Your task to perform on an android device: toggle notifications settings in the gmail app Image 0: 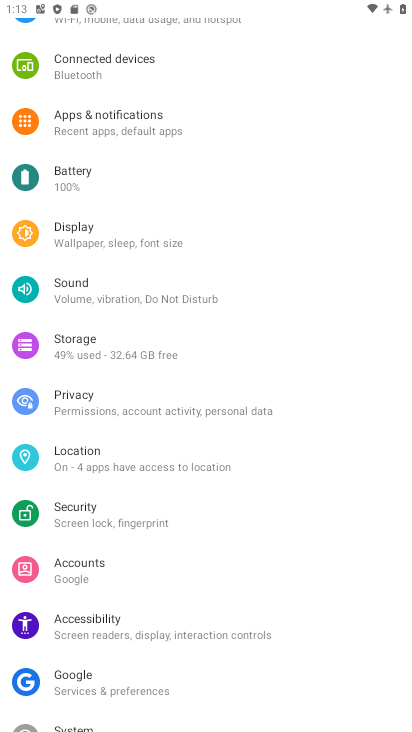
Step 0: press home button
Your task to perform on an android device: toggle notifications settings in the gmail app Image 1: 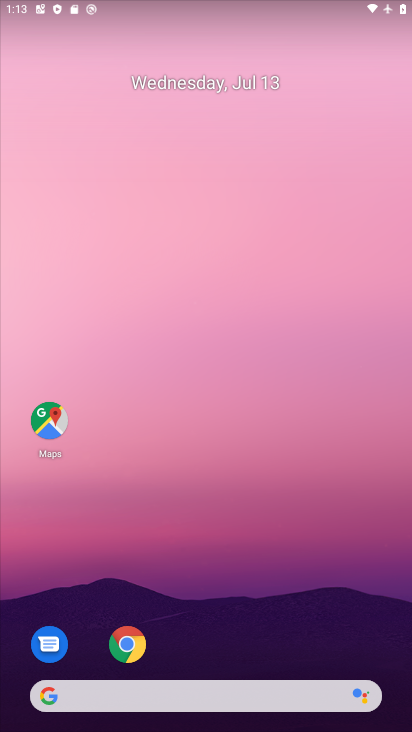
Step 1: drag from (293, 620) to (283, 107)
Your task to perform on an android device: toggle notifications settings in the gmail app Image 2: 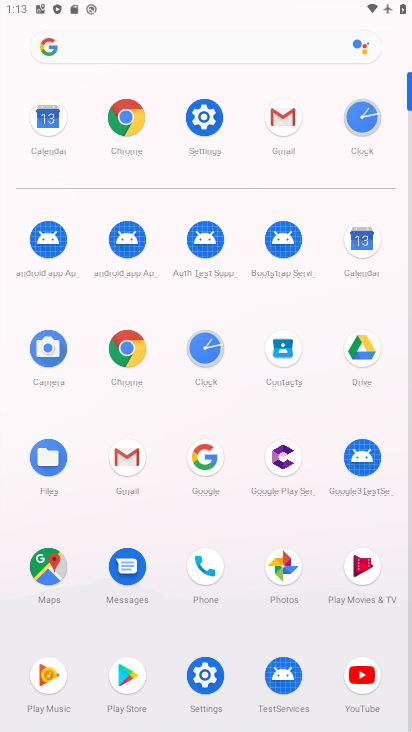
Step 2: click (292, 108)
Your task to perform on an android device: toggle notifications settings in the gmail app Image 3: 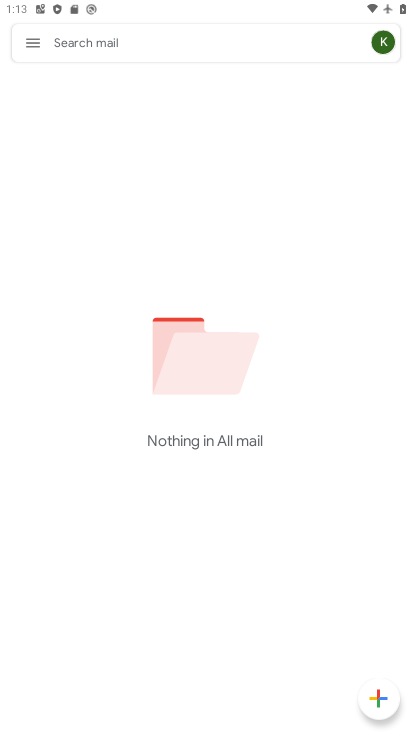
Step 3: click (37, 42)
Your task to perform on an android device: toggle notifications settings in the gmail app Image 4: 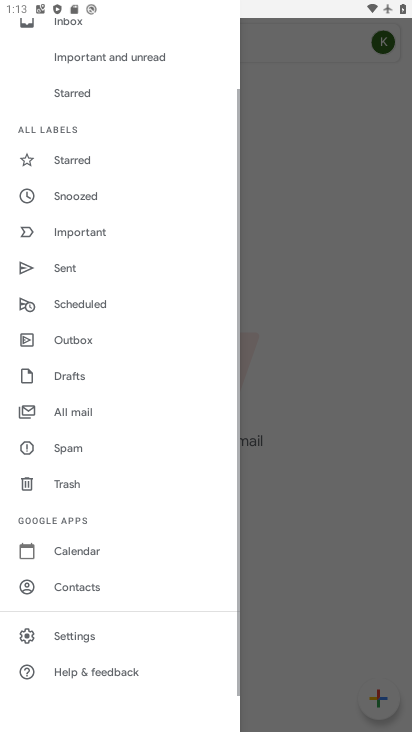
Step 4: click (89, 630)
Your task to perform on an android device: toggle notifications settings in the gmail app Image 5: 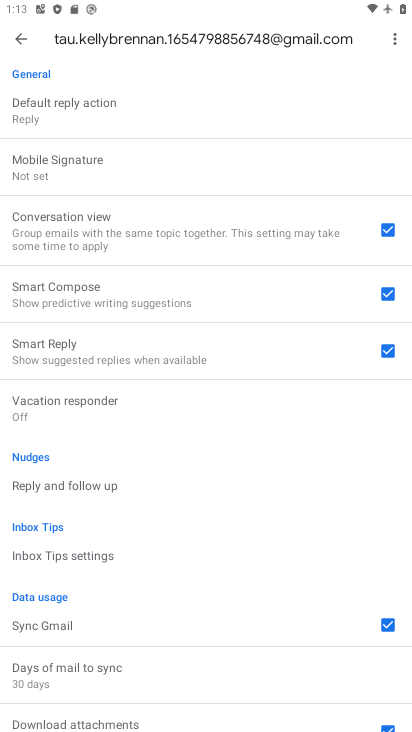
Step 5: drag from (255, 96) to (278, 580)
Your task to perform on an android device: toggle notifications settings in the gmail app Image 6: 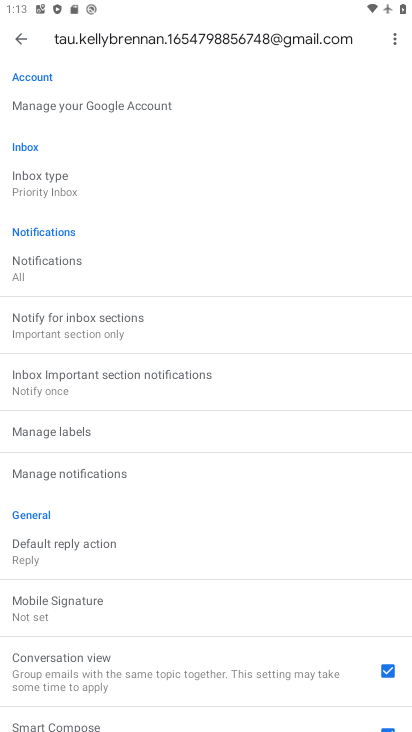
Step 6: click (110, 468)
Your task to perform on an android device: toggle notifications settings in the gmail app Image 7: 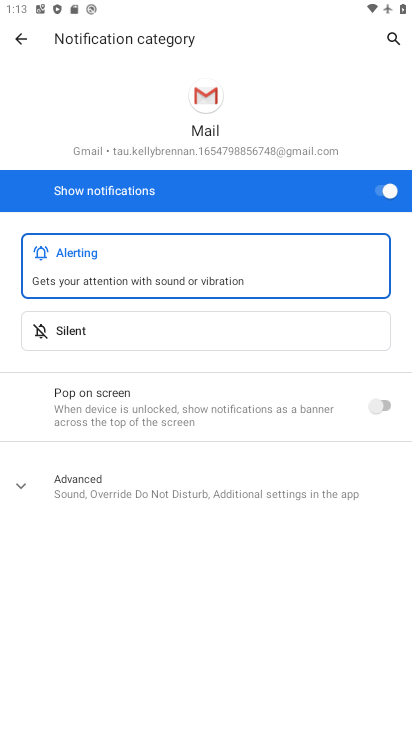
Step 7: click (371, 197)
Your task to perform on an android device: toggle notifications settings in the gmail app Image 8: 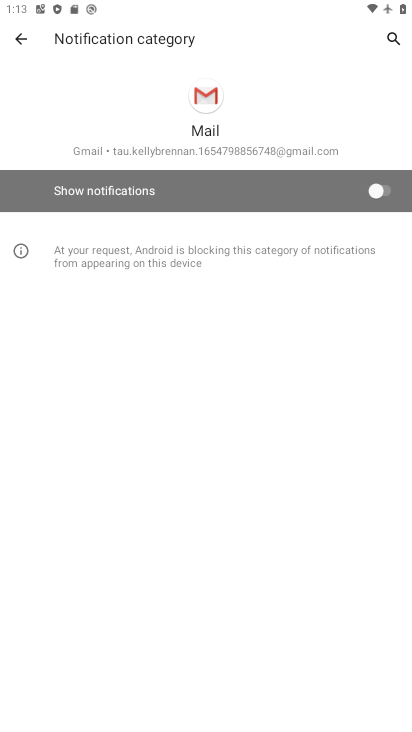
Step 8: task complete